Your task to perform on an android device: change the clock style Image 0: 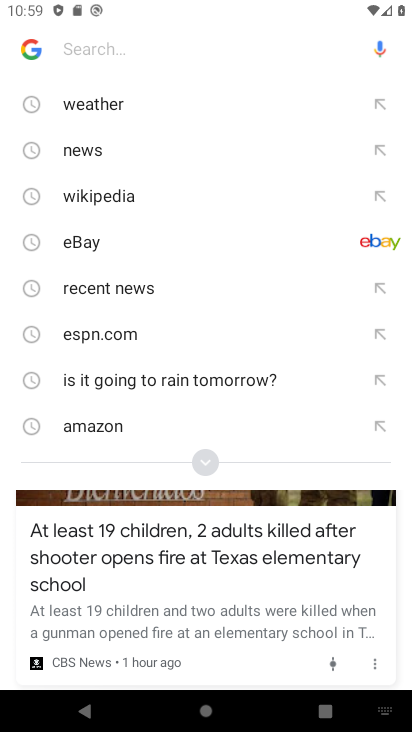
Step 0: press home button
Your task to perform on an android device: change the clock style Image 1: 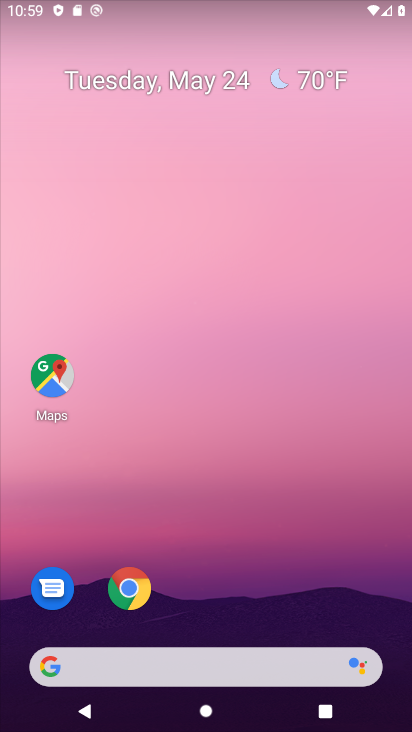
Step 1: drag from (188, 606) to (212, 48)
Your task to perform on an android device: change the clock style Image 2: 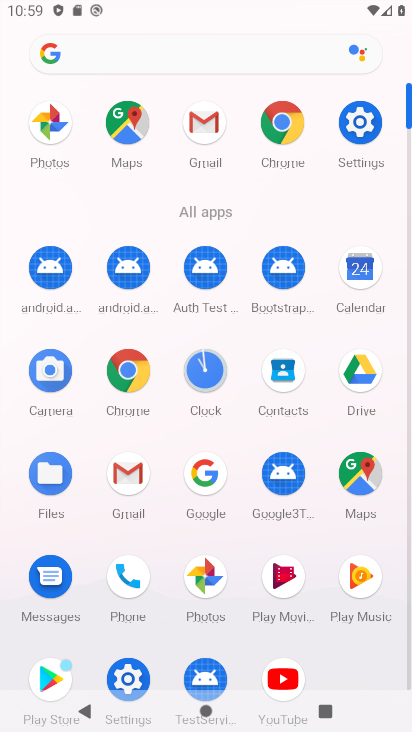
Step 2: click (202, 364)
Your task to perform on an android device: change the clock style Image 3: 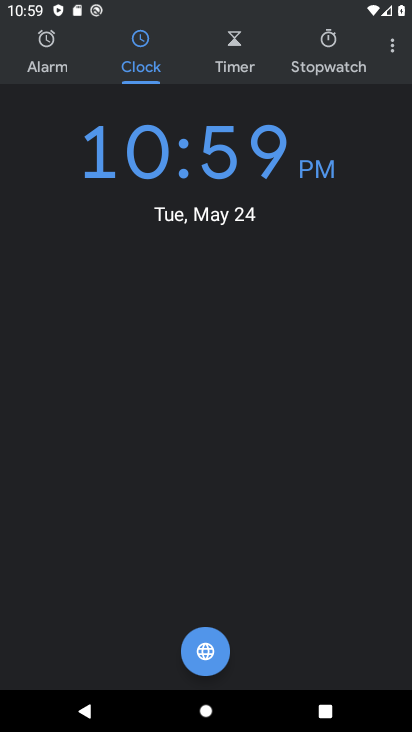
Step 3: click (392, 43)
Your task to perform on an android device: change the clock style Image 4: 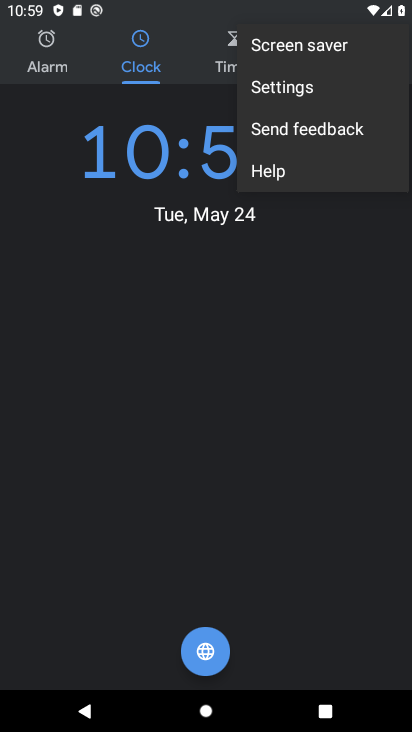
Step 4: click (320, 84)
Your task to perform on an android device: change the clock style Image 5: 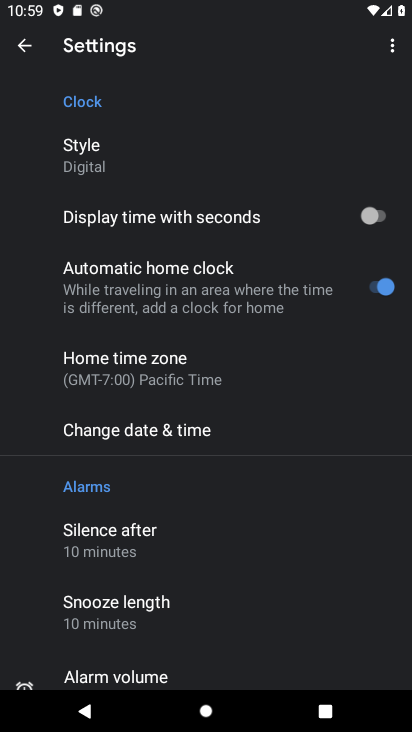
Step 5: click (143, 151)
Your task to perform on an android device: change the clock style Image 6: 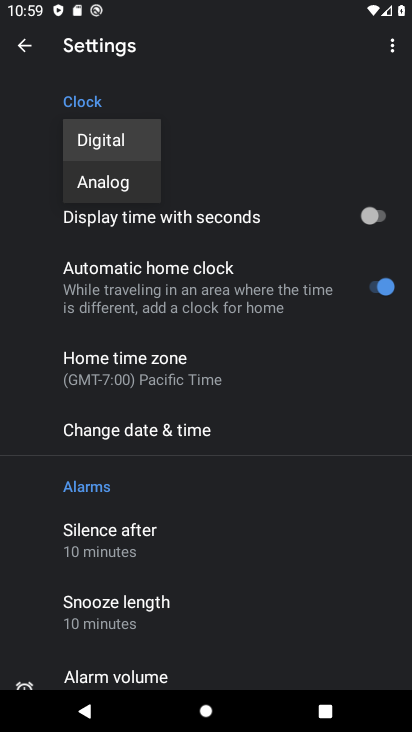
Step 6: click (93, 181)
Your task to perform on an android device: change the clock style Image 7: 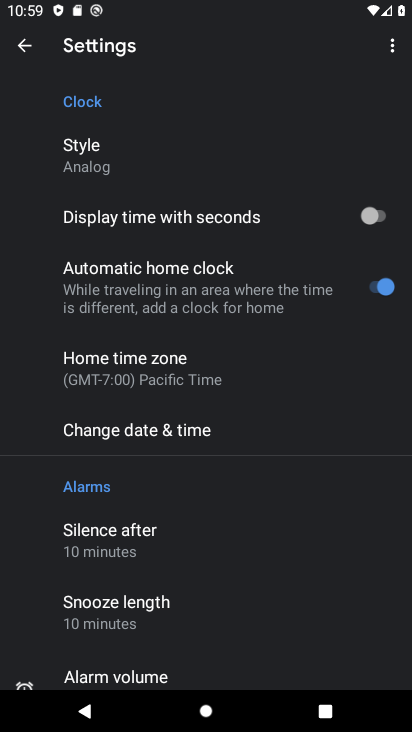
Step 7: task complete